Your task to perform on an android device: open device folders in google photos Image 0: 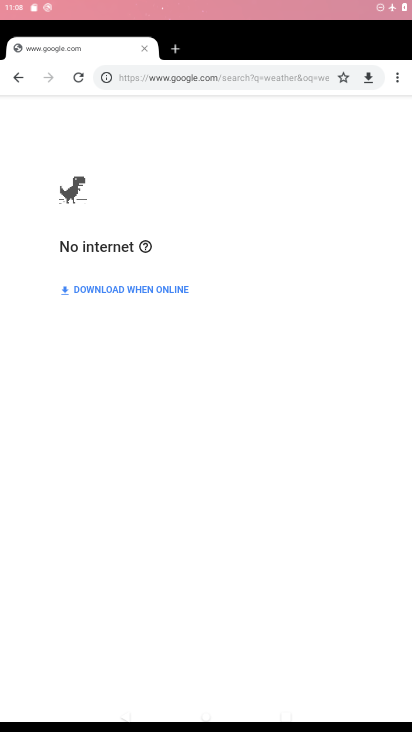
Step 0: drag from (217, 129) to (213, 53)
Your task to perform on an android device: open device folders in google photos Image 1: 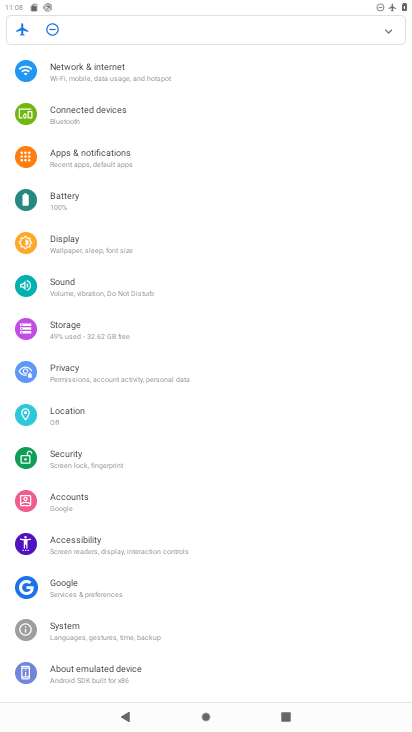
Step 1: press home button
Your task to perform on an android device: open device folders in google photos Image 2: 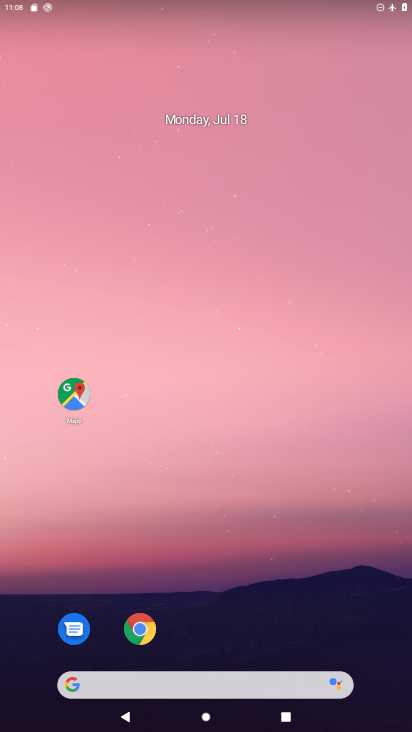
Step 2: drag from (325, 646) to (317, 38)
Your task to perform on an android device: open device folders in google photos Image 3: 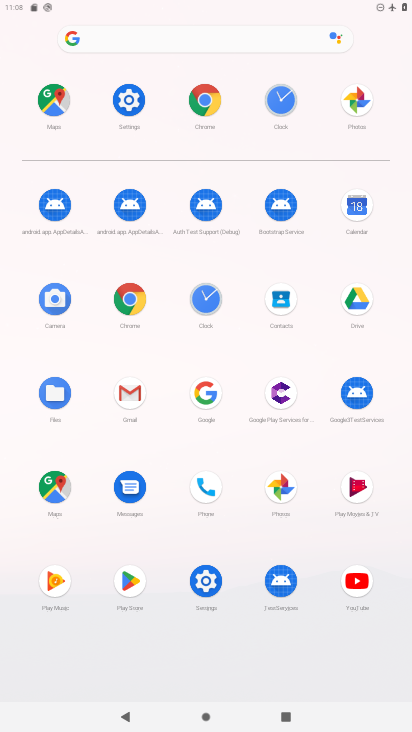
Step 3: click (292, 485)
Your task to perform on an android device: open device folders in google photos Image 4: 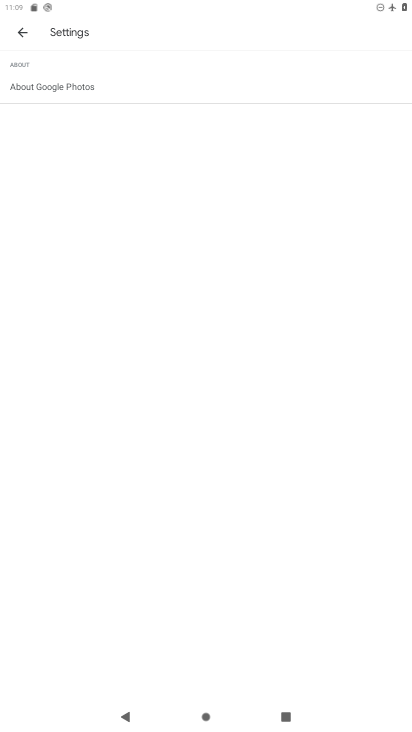
Step 4: click (17, 31)
Your task to perform on an android device: open device folders in google photos Image 5: 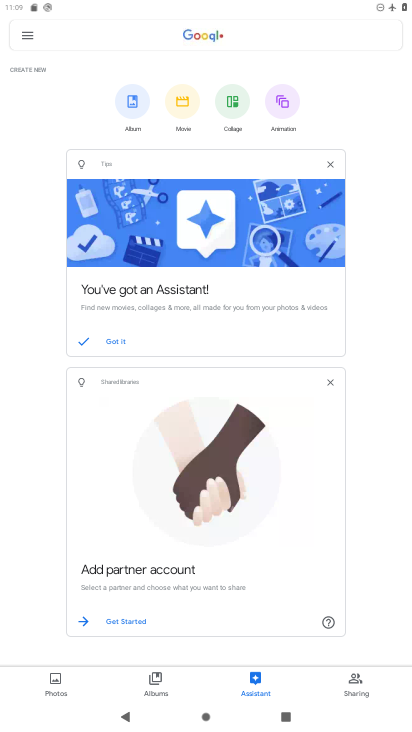
Step 5: click (24, 34)
Your task to perform on an android device: open device folders in google photos Image 6: 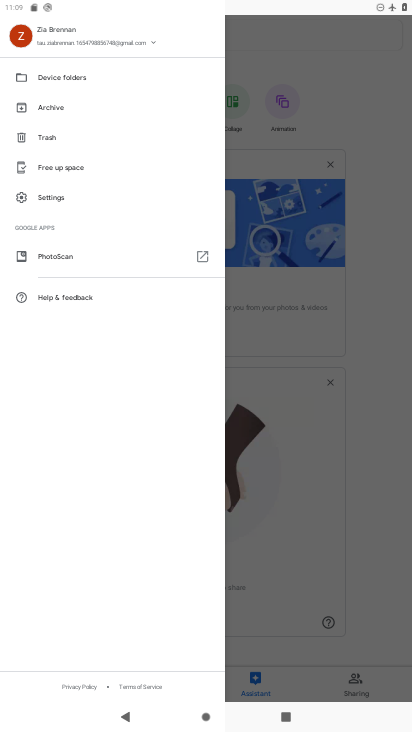
Step 6: click (53, 79)
Your task to perform on an android device: open device folders in google photos Image 7: 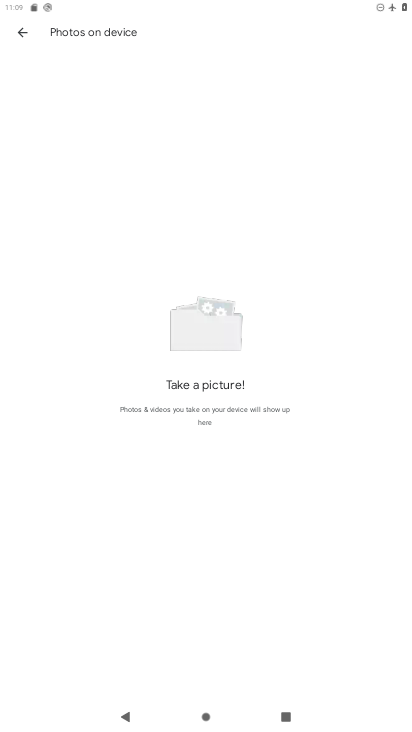
Step 7: task complete